Your task to perform on an android device: Go to Yahoo.com Image 0: 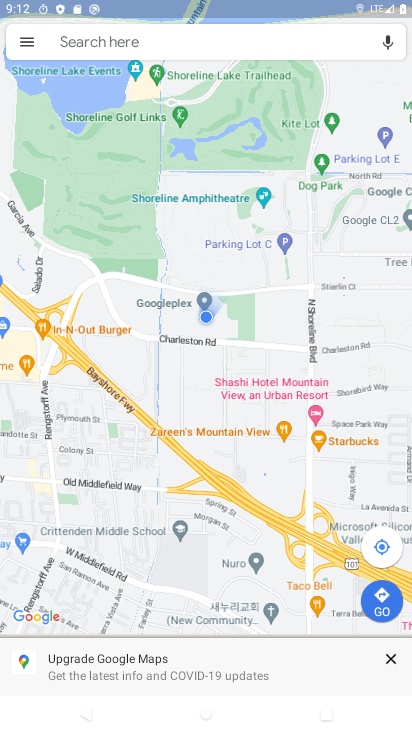
Step 0: press home button
Your task to perform on an android device: Go to Yahoo.com Image 1: 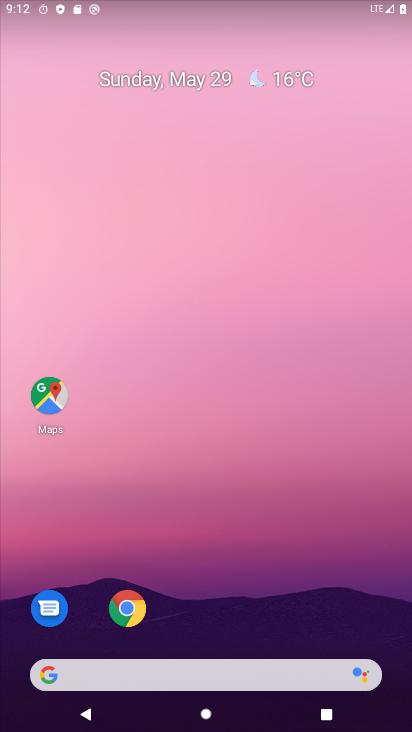
Step 1: drag from (215, 615) to (235, 32)
Your task to perform on an android device: Go to Yahoo.com Image 2: 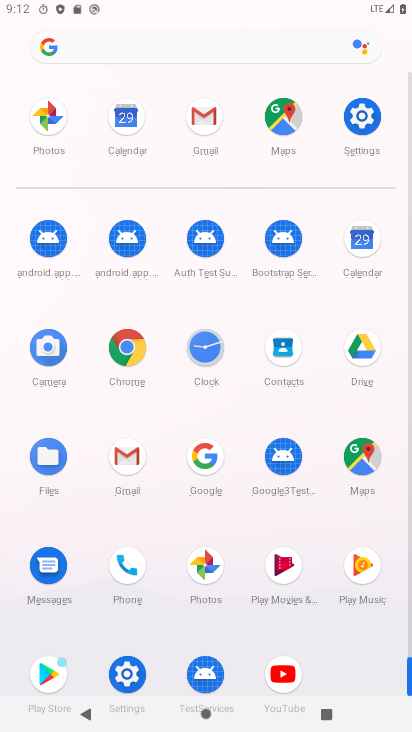
Step 2: click (116, 381)
Your task to perform on an android device: Go to Yahoo.com Image 3: 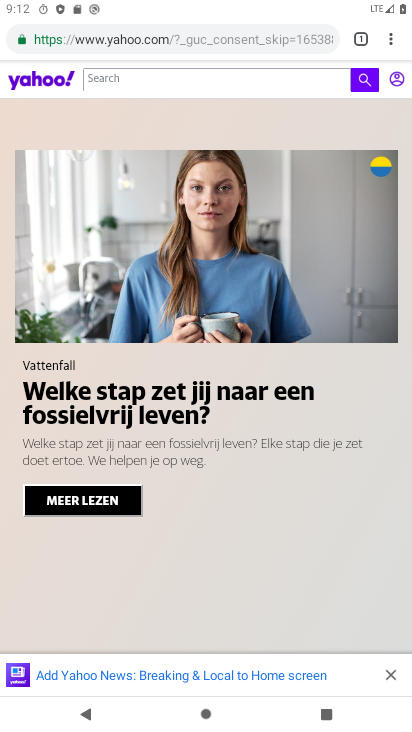
Step 3: task complete